Your task to perform on an android device: Open Chrome and go to settings Image 0: 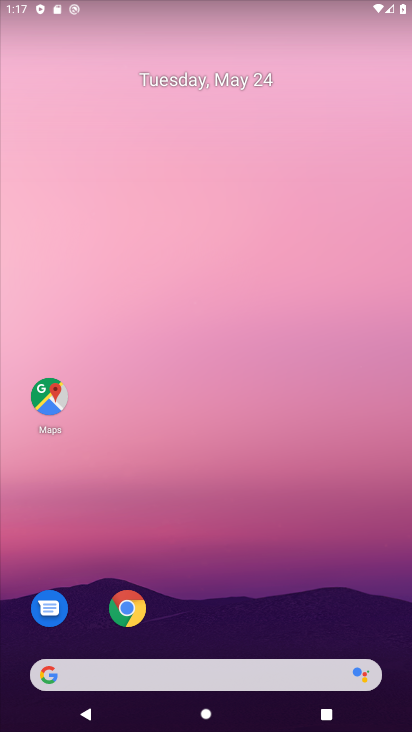
Step 0: click (134, 613)
Your task to perform on an android device: Open Chrome and go to settings Image 1: 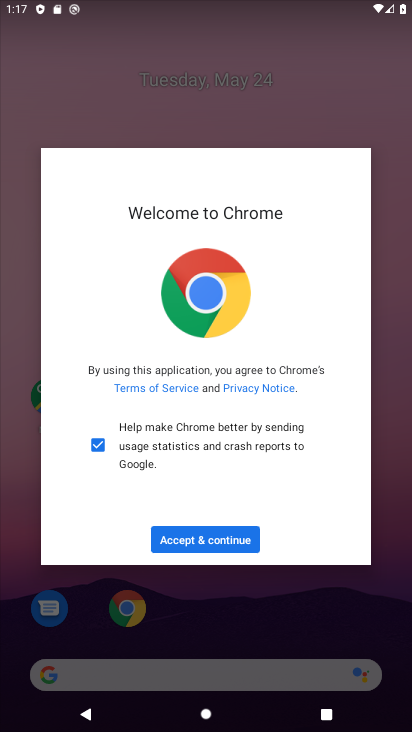
Step 1: click (178, 546)
Your task to perform on an android device: Open Chrome and go to settings Image 2: 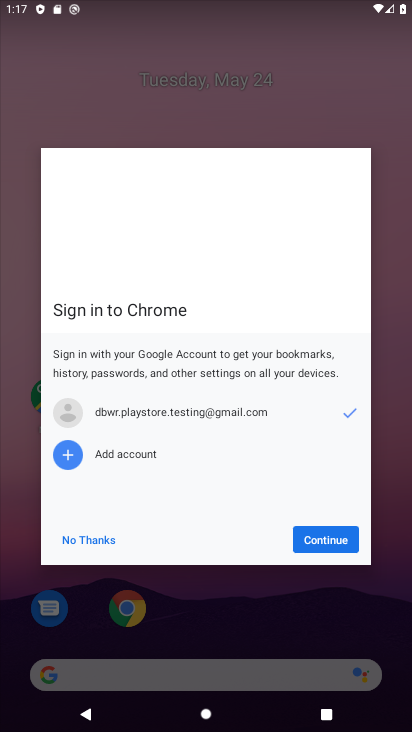
Step 2: click (346, 543)
Your task to perform on an android device: Open Chrome and go to settings Image 3: 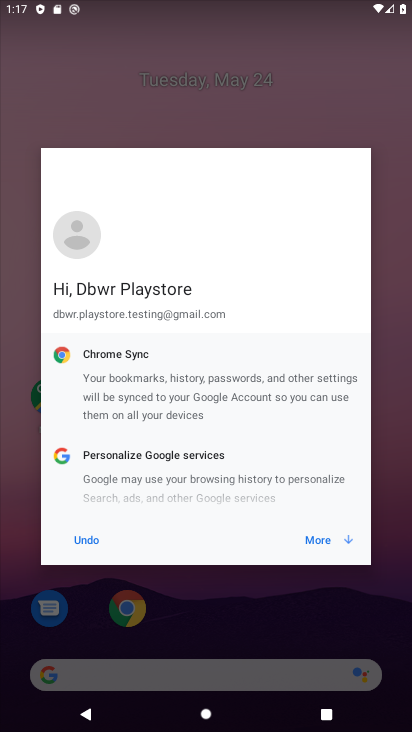
Step 3: click (346, 543)
Your task to perform on an android device: Open Chrome and go to settings Image 4: 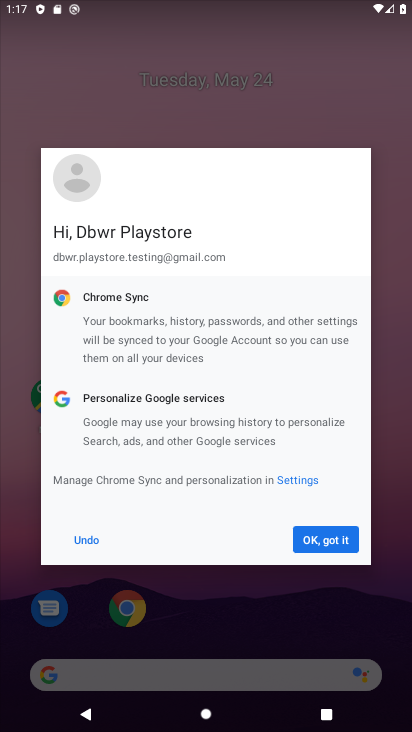
Step 4: click (346, 543)
Your task to perform on an android device: Open Chrome and go to settings Image 5: 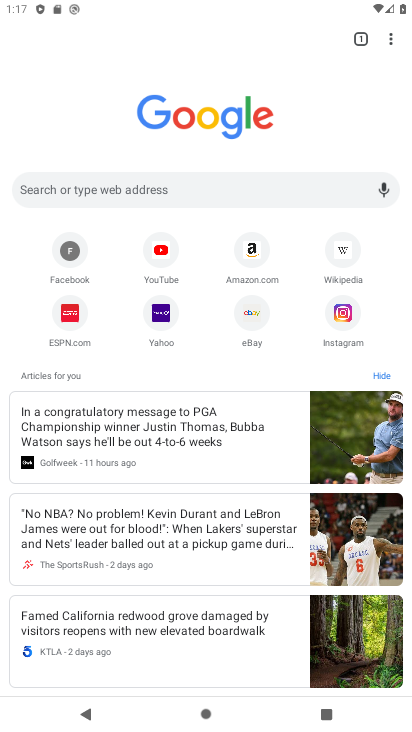
Step 5: click (392, 38)
Your task to perform on an android device: Open Chrome and go to settings Image 6: 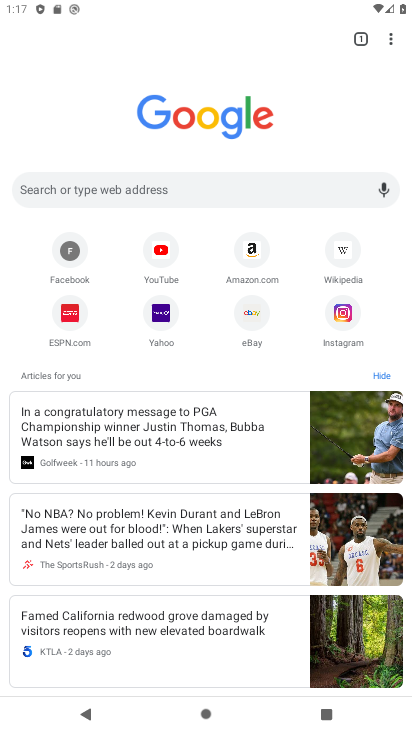
Step 6: click (392, 38)
Your task to perform on an android device: Open Chrome and go to settings Image 7: 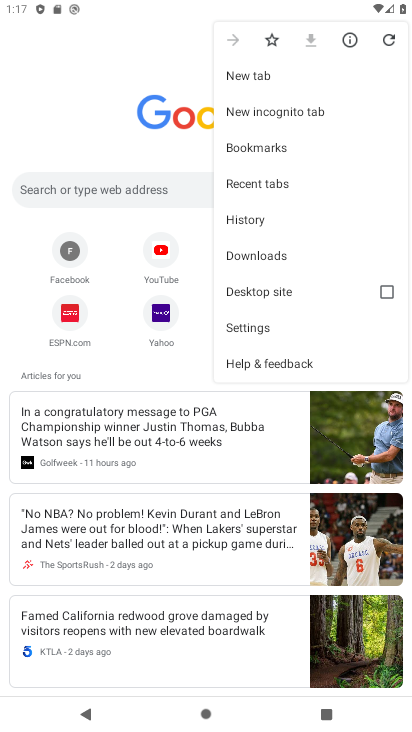
Step 7: click (331, 338)
Your task to perform on an android device: Open Chrome and go to settings Image 8: 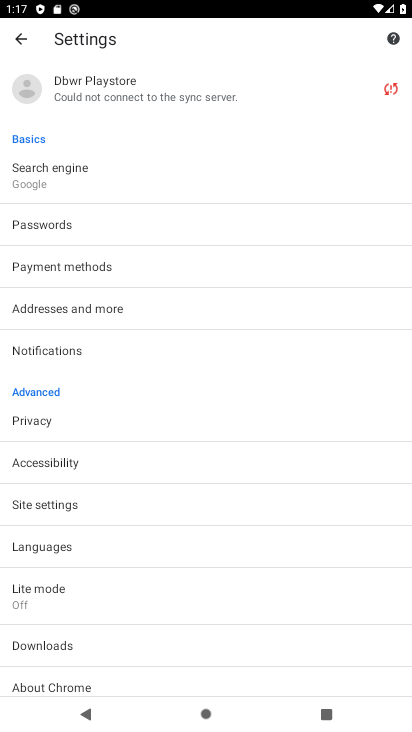
Step 8: task complete